Your task to perform on an android device: Open Yahoo.com Image 0: 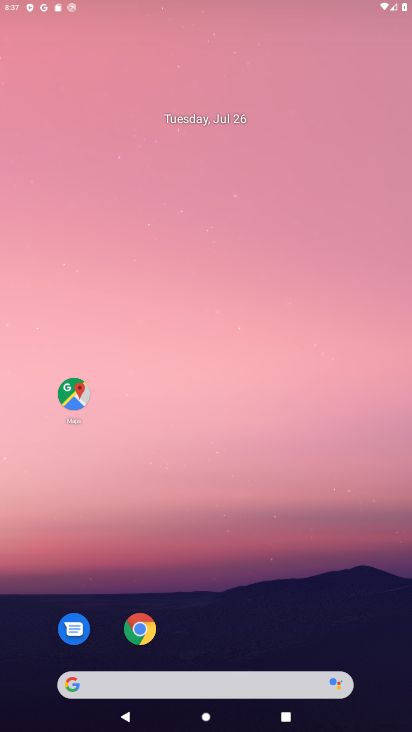
Step 0: press home button
Your task to perform on an android device: Open Yahoo.com Image 1: 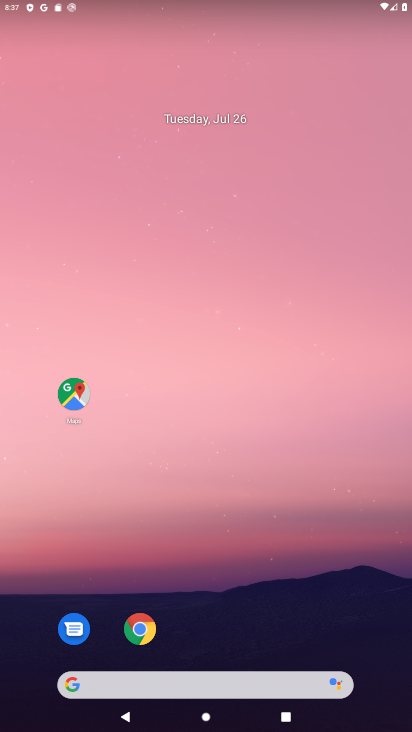
Step 1: click (132, 636)
Your task to perform on an android device: Open Yahoo.com Image 2: 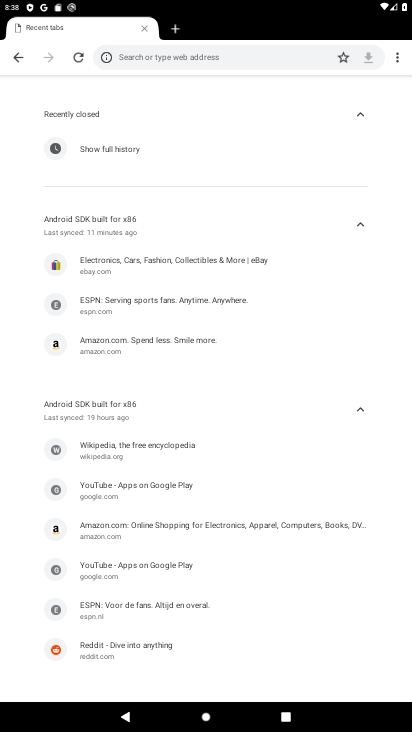
Step 2: click (176, 61)
Your task to perform on an android device: Open Yahoo.com Image 3: 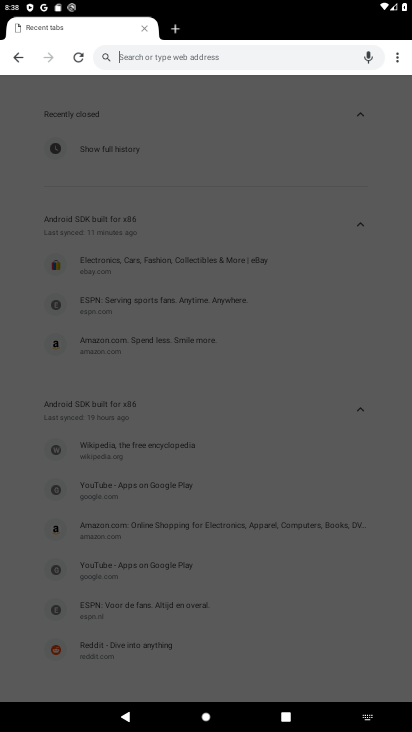
Step 3: type "Yahoo.com"
Your task to perform on an android device: Open Yahoo.com Image 4: 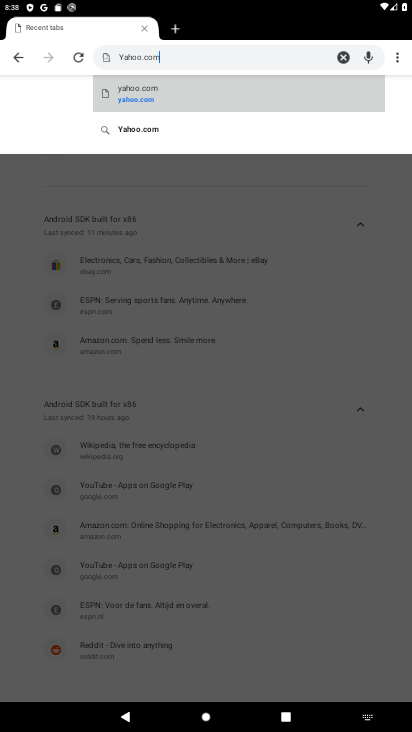
Step 4: type ""
Your task to perform on an android device: Open Yahoo.com Image 5: 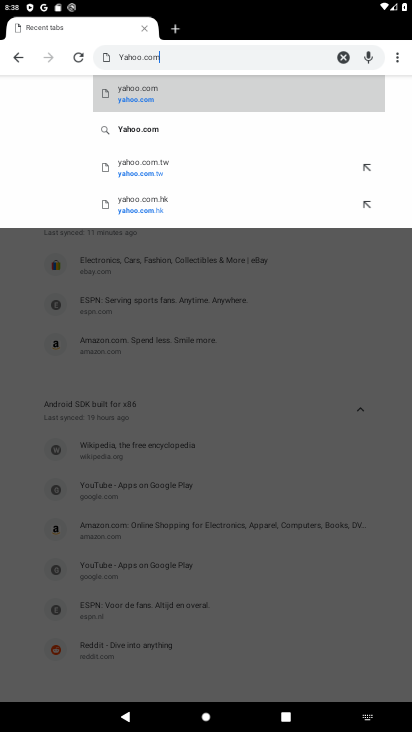
Step 5: click (149, 94)
Your task to perform on an android device: Open Yahoo.com Image 6: 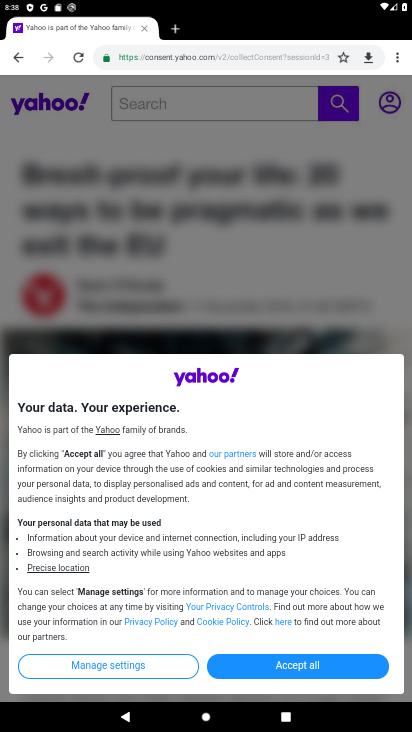
Step 6: task complete